Your task to perform on an android device: turn on priority inbox in the gmail app Image 0: 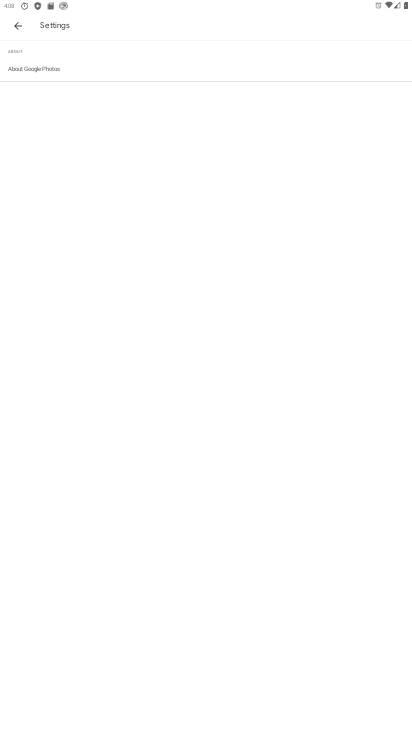
Step 0: press home button
Your task to perform on an android device: turn on priority inbox in the gmail app Image 1: 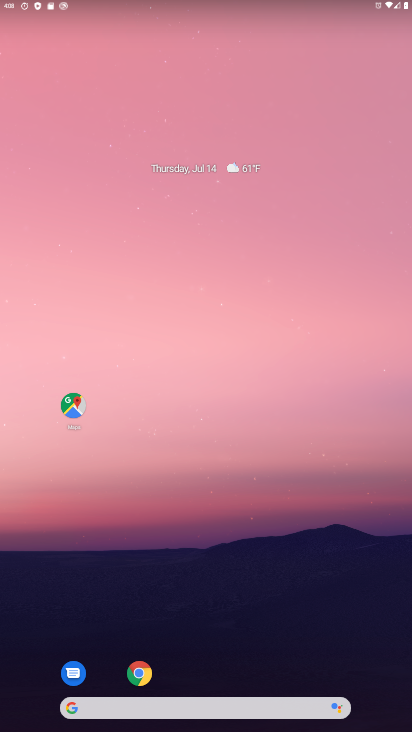
Step 1: drag from (226, 678) to (230, 4)
Your task to perform on an android device: turn on priority inbox in the gmail app Image 2: 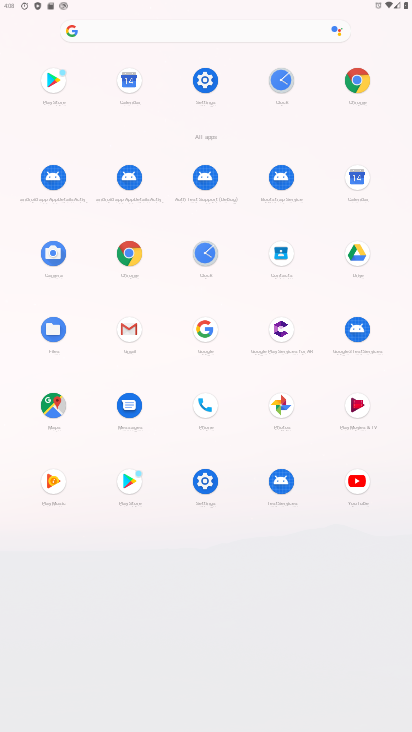
Step 2: click (127, 334)
Your task to perform on an android device: turn on priority inbox in the gmail app Image 3: 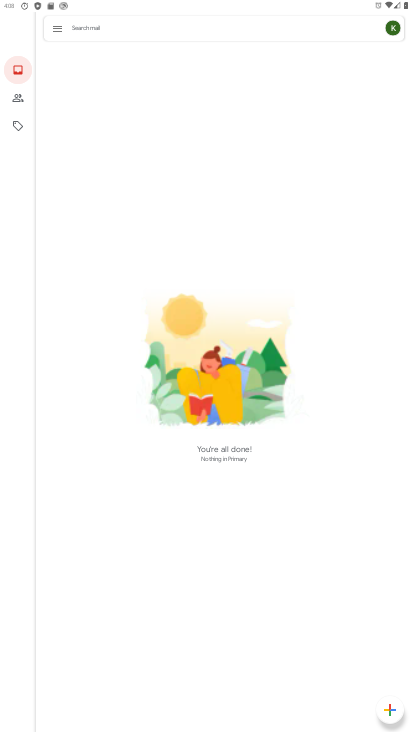
Step 3: click (52, 18)
Your task to perform on an android device: turn on priority inbox in the gmail app Image 4: 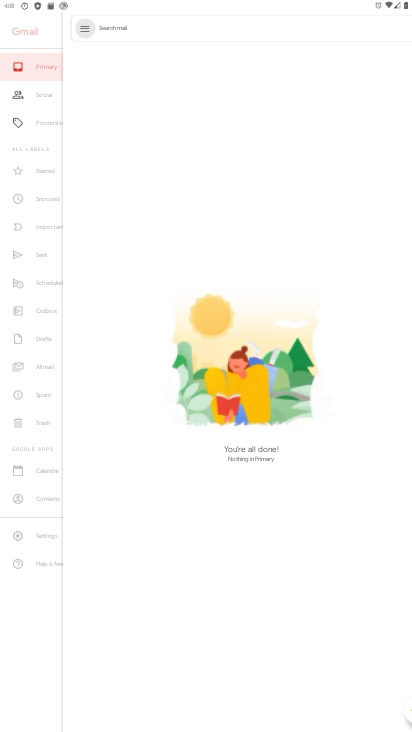
Step 4: click (52, 28)
Your task to perform on an android device: turn on priority inbox in the gmail app Image 5: 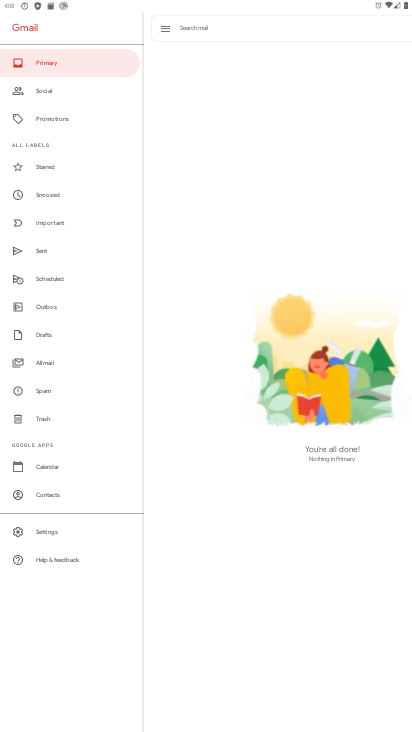
Step 5: click (48, 522)
Your task to perform on an android device: turn on priority inbox in the gmail app Image 6: 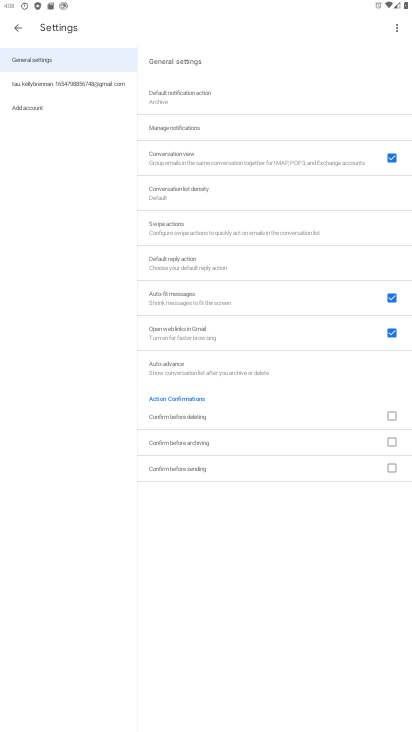
Step 6: click (40, 78)
Your task to perform on an android device: turn on priority inbox in the gmail app Image 7: 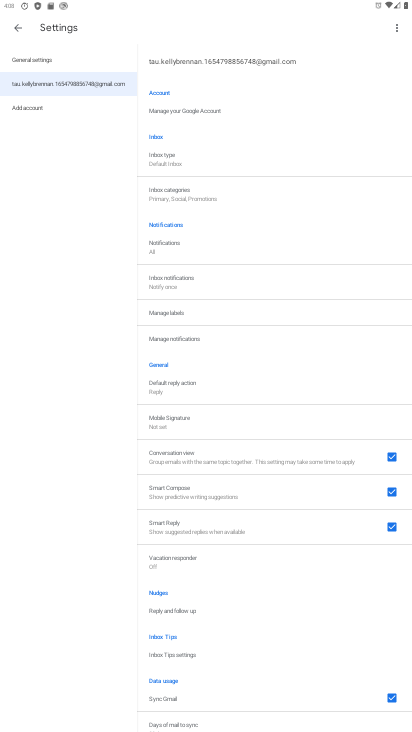
Step 7: click (184, 168)
Your task to perform on an android device: turn on priority inbox in the gmail app Image 8: 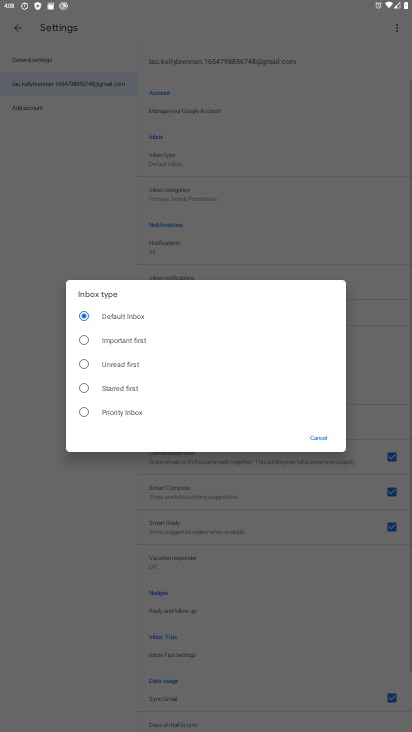
Step 8: click (142, 401)
Your task to perform on an android device: turn on priority inbox in the gmail app Image 9: 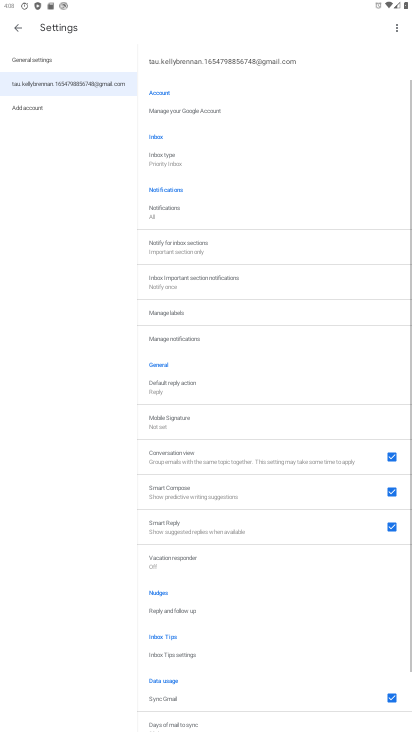
Step 9: task complete